Your task to perform on an android device: Go to eBay Image 0: 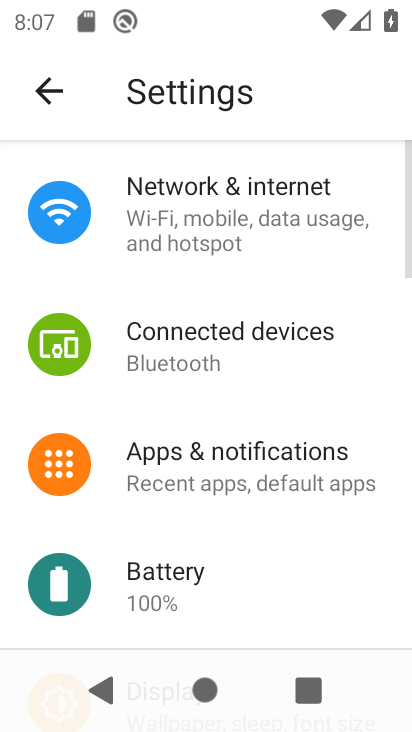
Step 0: press home button
Your task to perform on an android device: Go to eBay Image 1: 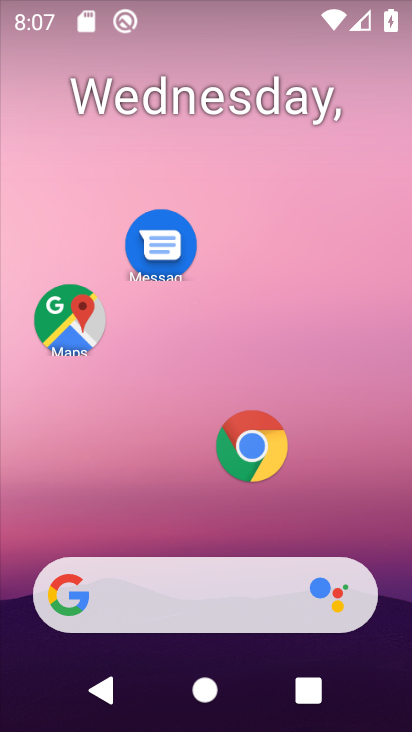
Step 1: click (244, 444)
Your task to perform on an android device: Go to eBay Image 2: 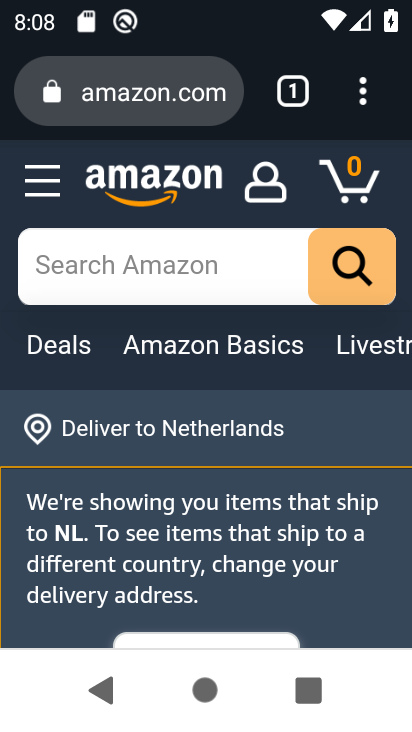
Step 2: click (302, 88)
Your task to perform on an android device: Go to eBay Image 3: 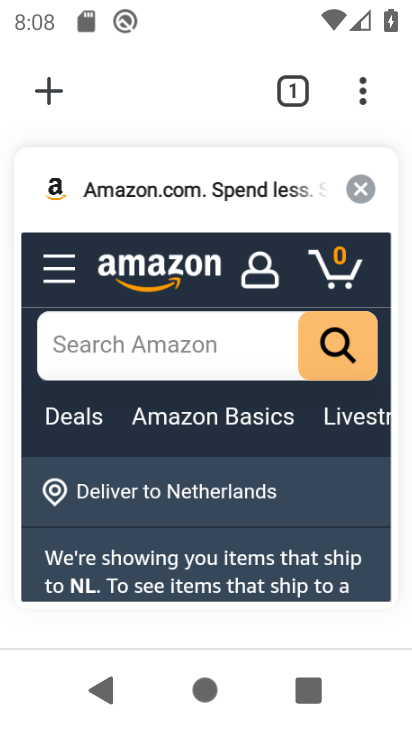
Step 3: drag from (356, 179) to (63, 82)
Your task to perform on an android device: Go to eBay Image 4: 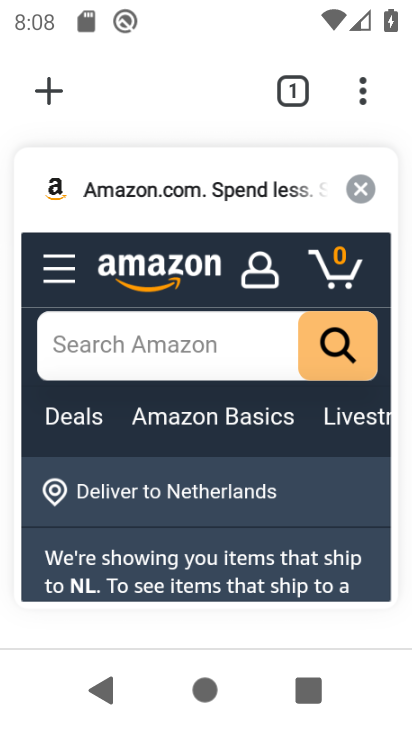
Step 4: click (59, 90)
Your task to perform on an android device: Go to eBay Image 5: 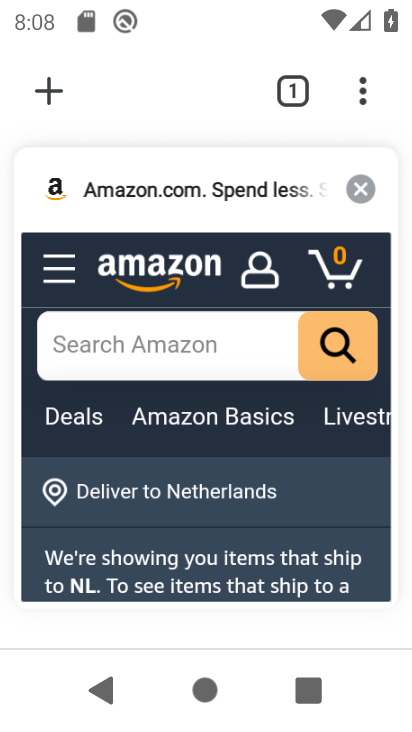
Step 5: click (48, 88)
Your task to perform on an android device: Go to eBay Image 6: 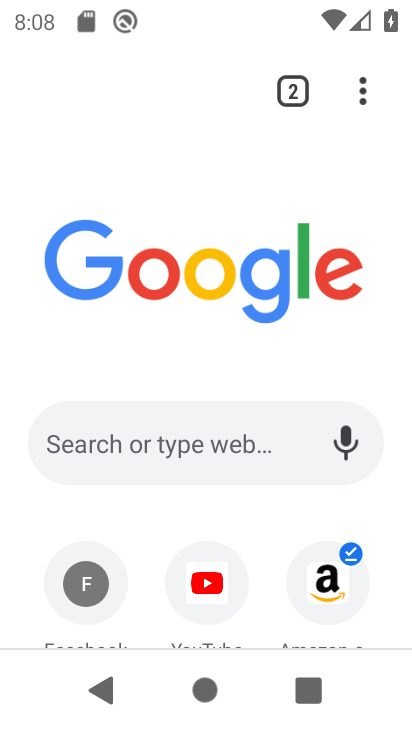
Step 6: click (180, 440)
Your task to perform on an android device: Go to eBay Image 7: 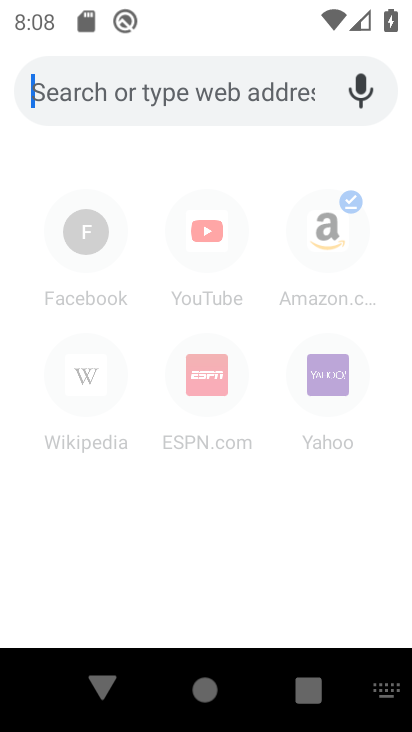
Step 7: type "ebay"
Your task to perform on an android device: Go to eBay Image 8: 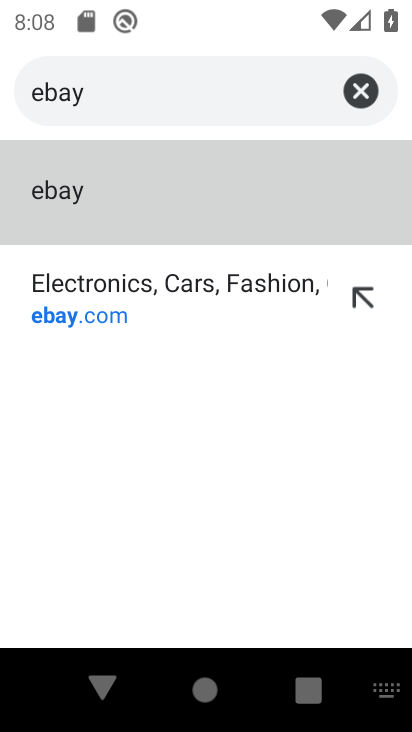
Step 8: click (113, 298)
Your task to perform on an android device: Go to eBay Image 9: 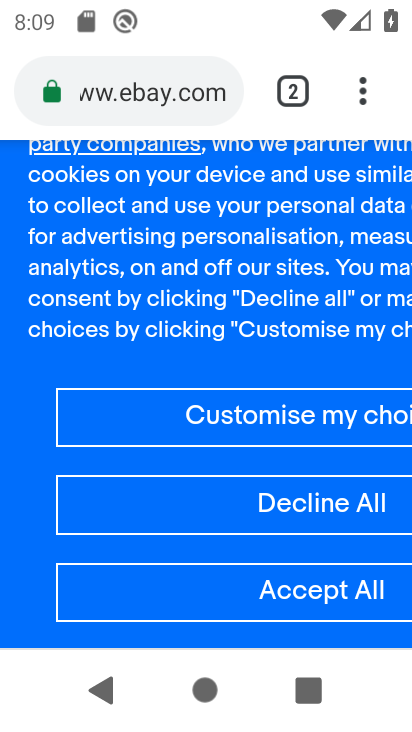
Step 9: click (241, 595)
Your task to perform on an android device: Go to eBay Image 10: 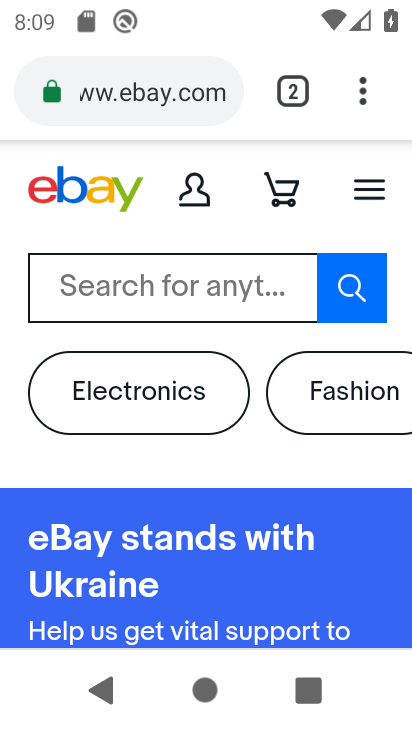
Step 10: task complete